Your task to perform on an android device: allow cookies in the chrome app Image 0: 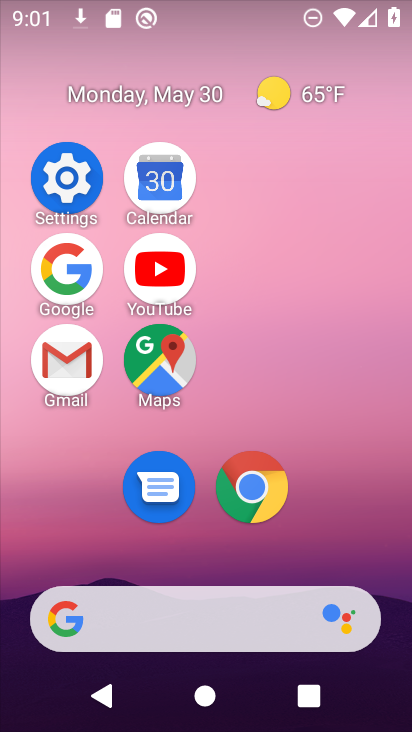
Step 0: click (265, 491)
Your task to perform on an android device: allow cookies in the chrome app Image 1: 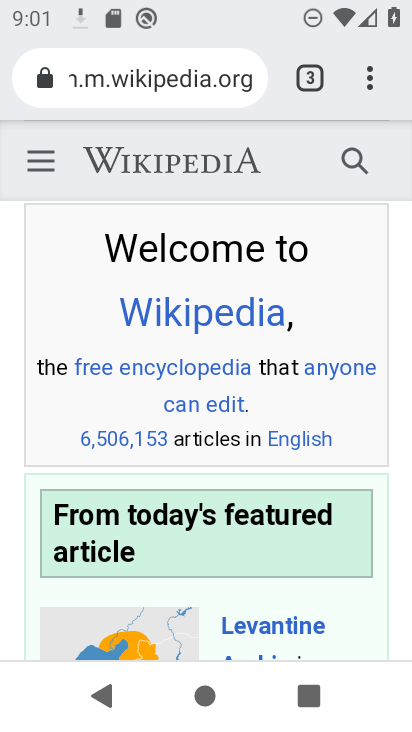
Step 1: click (372, 81)
Your task to perform on an android device: allow cookies in the chrome app Image 2: 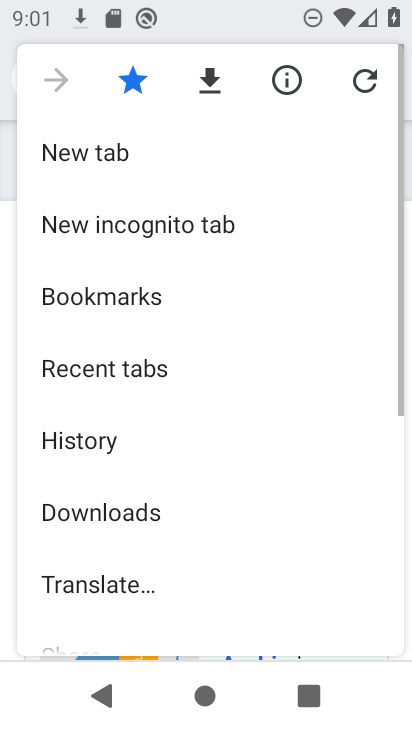
Step 2: drag from (205, 583) to (197, 92)
Your task to perform on an android device: allow cookies in the chrome app Image 3: 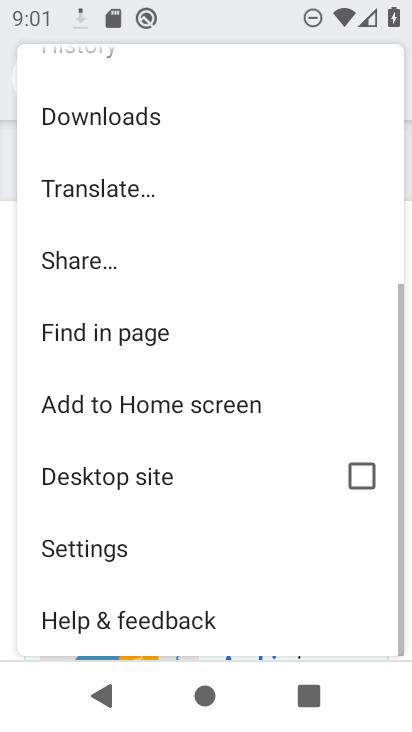
Step 3: click (185, 534)
Your task to perform on an android device: allow cookies in the chrome app Image 4: 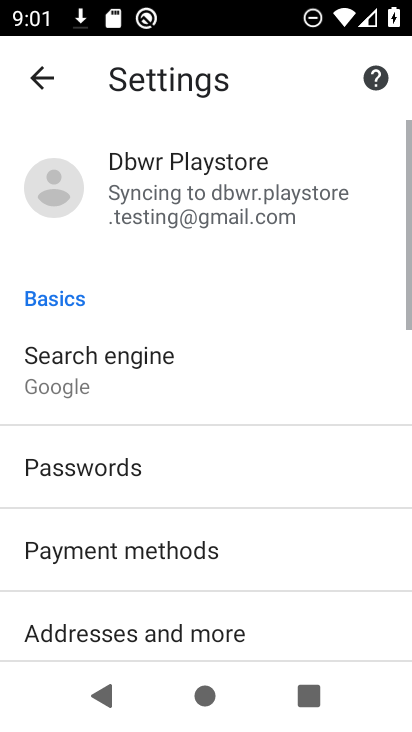
Step 4: drag from (185, 534) to (190, 101)
Your task to perform on an android device: allow cookies in the chrome app Image 5: 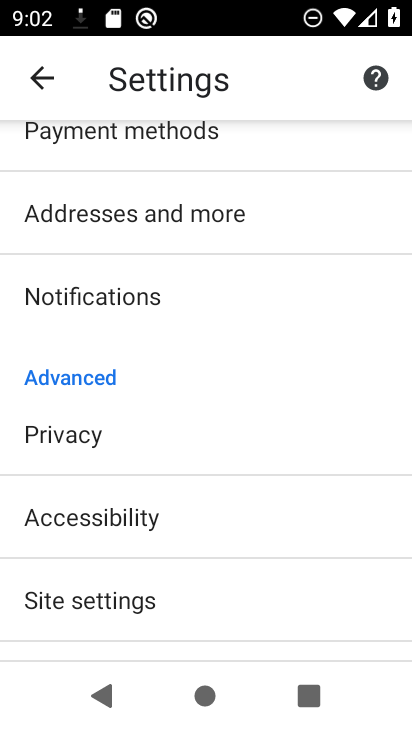
Step 5: drag from (223, 552) to (219, 159)
Your task to perform on an android device: allow cookies in the chrome app Image 6: 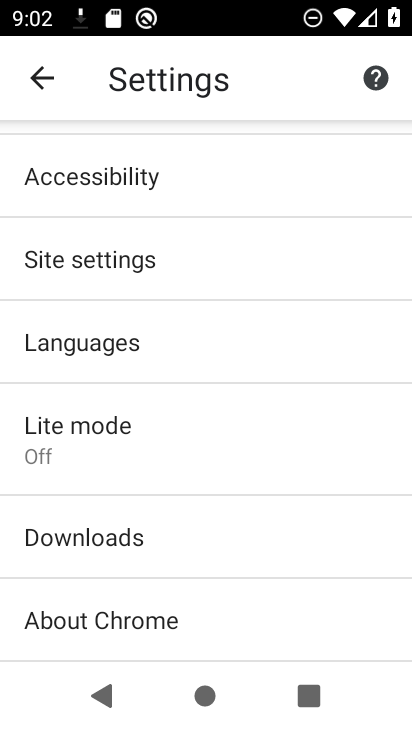
Step 6: click (237, 269)
Your task to perform on an android device: allow cookies in the chrome app Image 7: 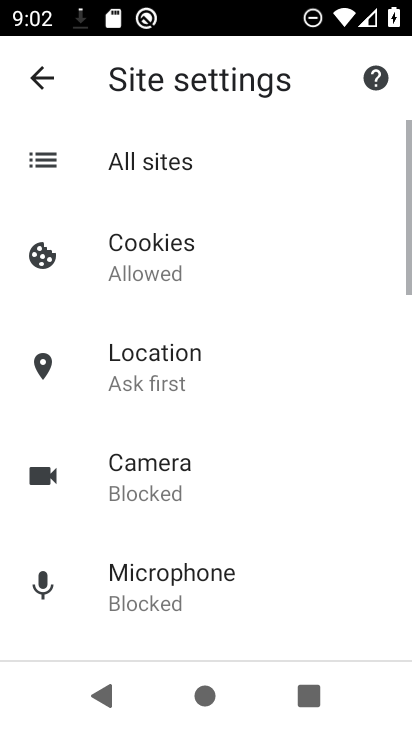
Step 7: click (235, 267)
Your task to perform on an android device: allow cookies in the chrome app Image 8: 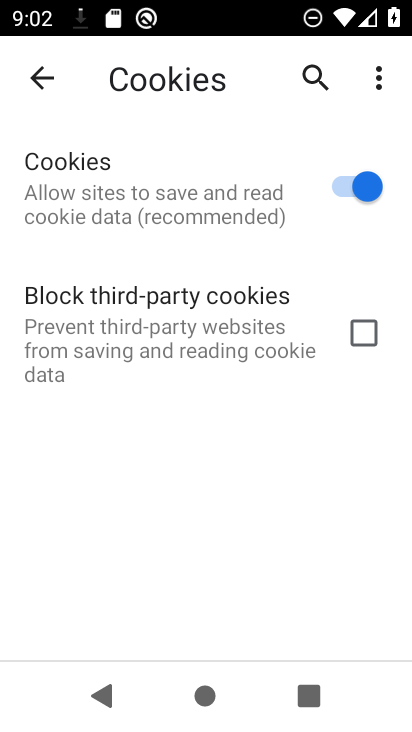
Step 8: task complete